Your task to perform on an android device: remove spam from my inbox in the gmail app Image 0: 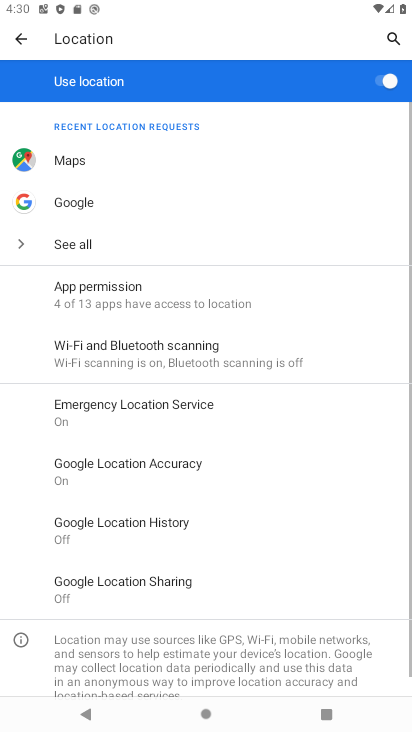
Step 0: press home button
Your task to perform on an android device: remove spam from my inbox in the gmail app Image 1: 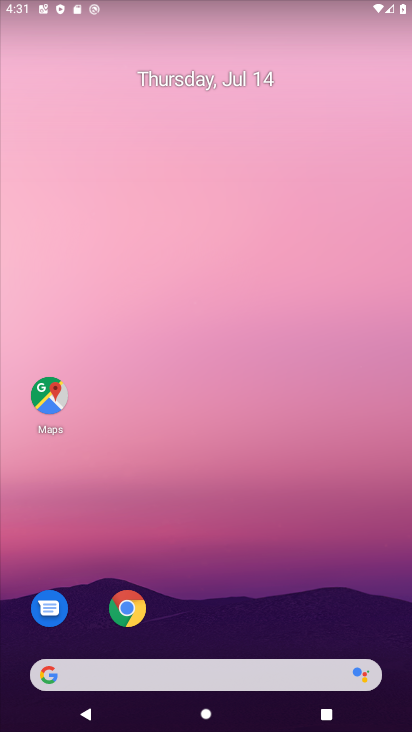
Step 1: drag from (63, 474) to (201, 99)
Your task to perform on an android device: remove spam from my inbox in the gmail app Image 2: 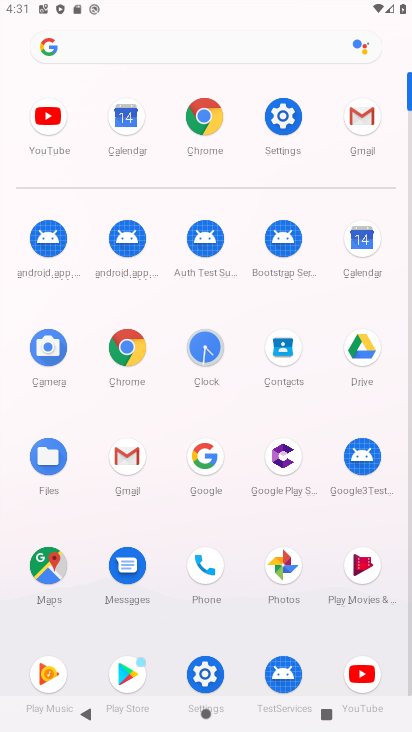
Step 2: click (365, 133)
Your task to perform on an android device: remove spam from my inbox in the gmail app Image 3: 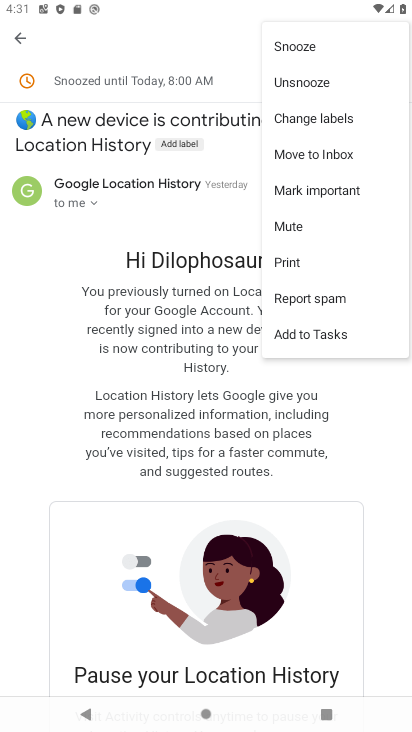
Step 3: click (77, 444)
Your task to perform on an android device: remove spam from my inbox in the gmail app Image 4: 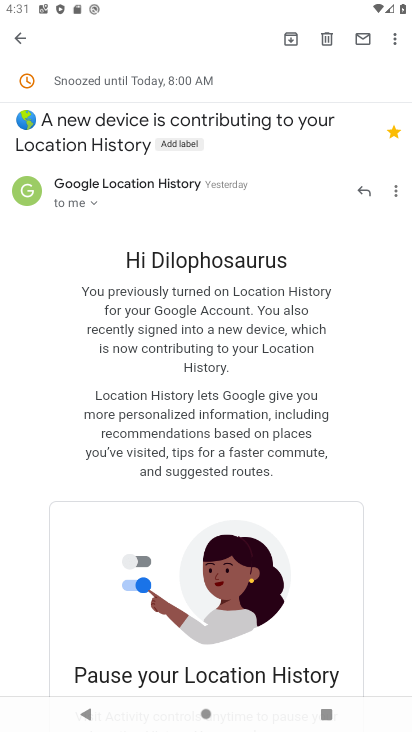
Step 4: task complete